Your task to perform on an android device: What's on my calendar for the rest of the week? Image 0: 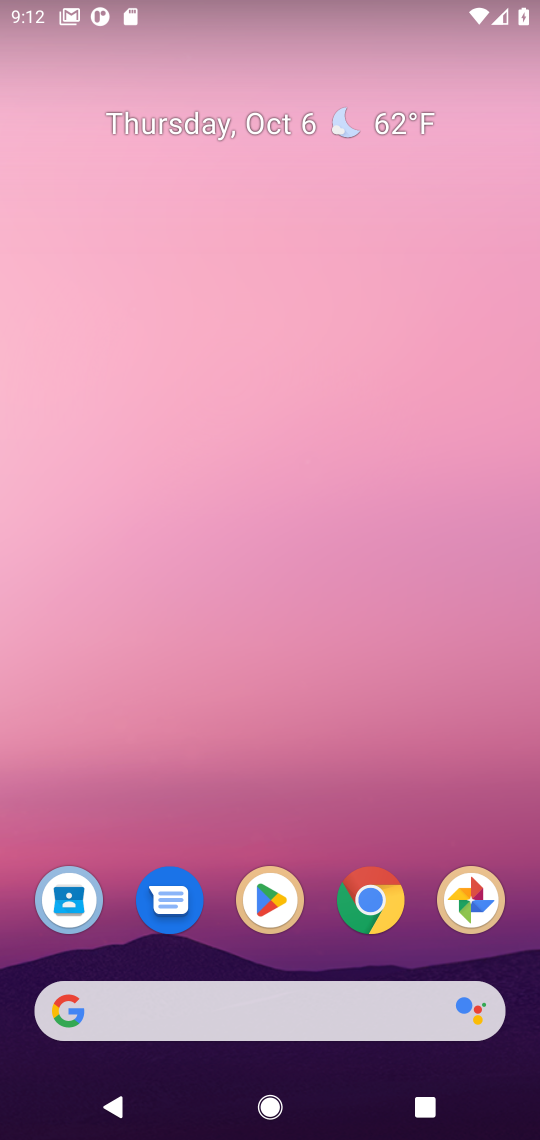
Step 0: press home button
Your task to perform on an android device: What's on my calendar for the rest of the week? Image 1: 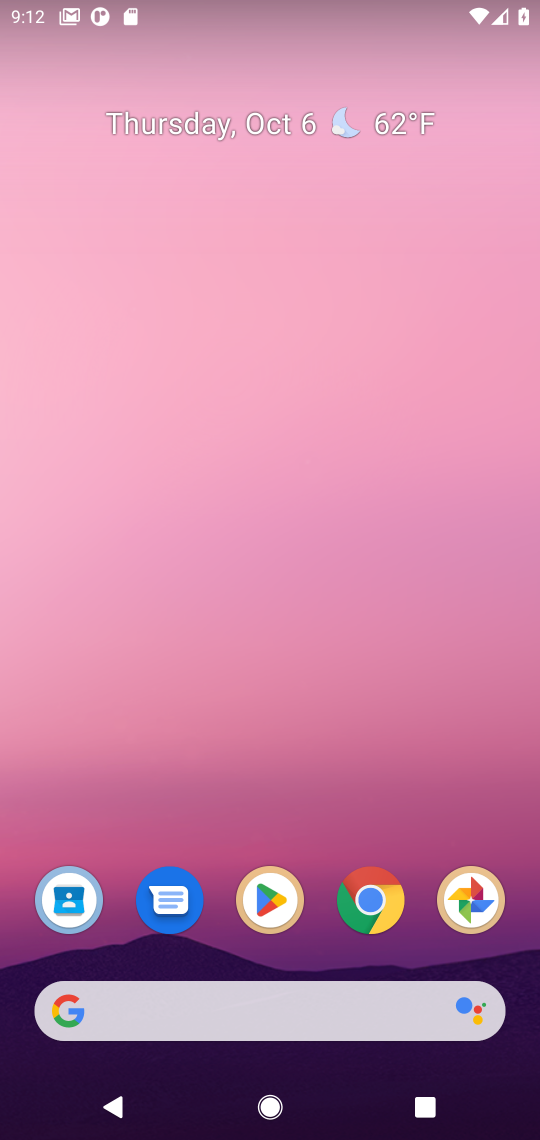
Step 1: drag from (157, 789) to (128, 24)
Your task to perform on an android device: What's on my calendar for the rest of the week? Image 2: 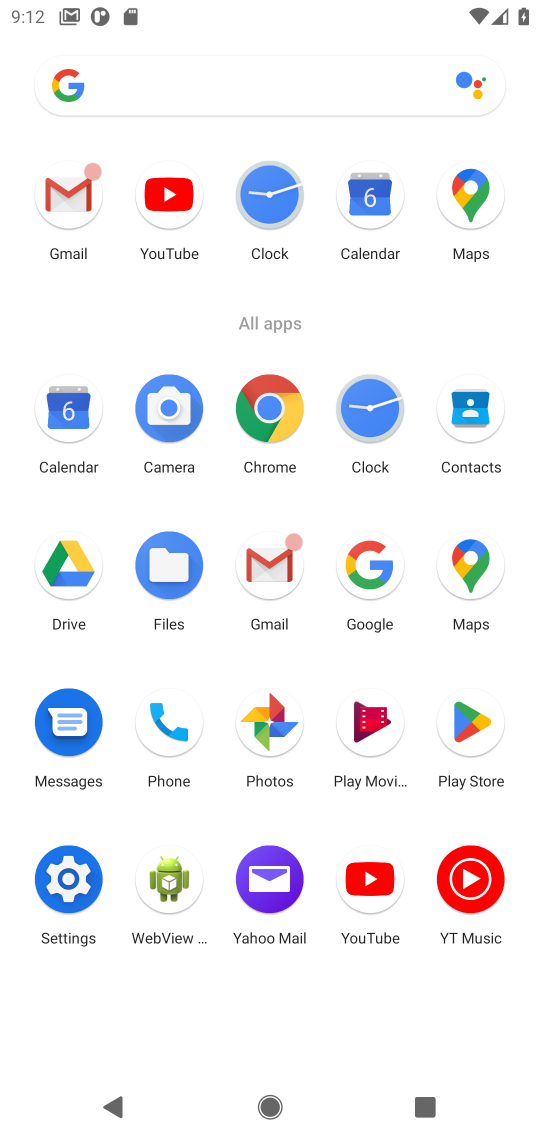
Step 2: click (68, 418)
Your task to perform on an android device: What's on my calendar for the rest of the week? Image 3: 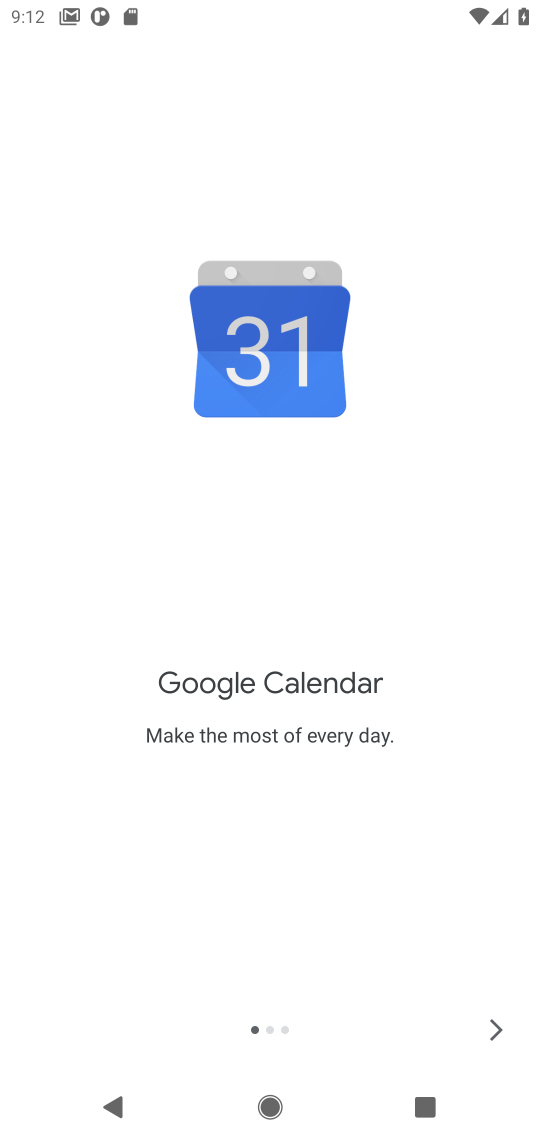
Step 3: click (484, 1032)
Your task to perform on an android device: What's on my calendar for the rest of the week? Image 4: 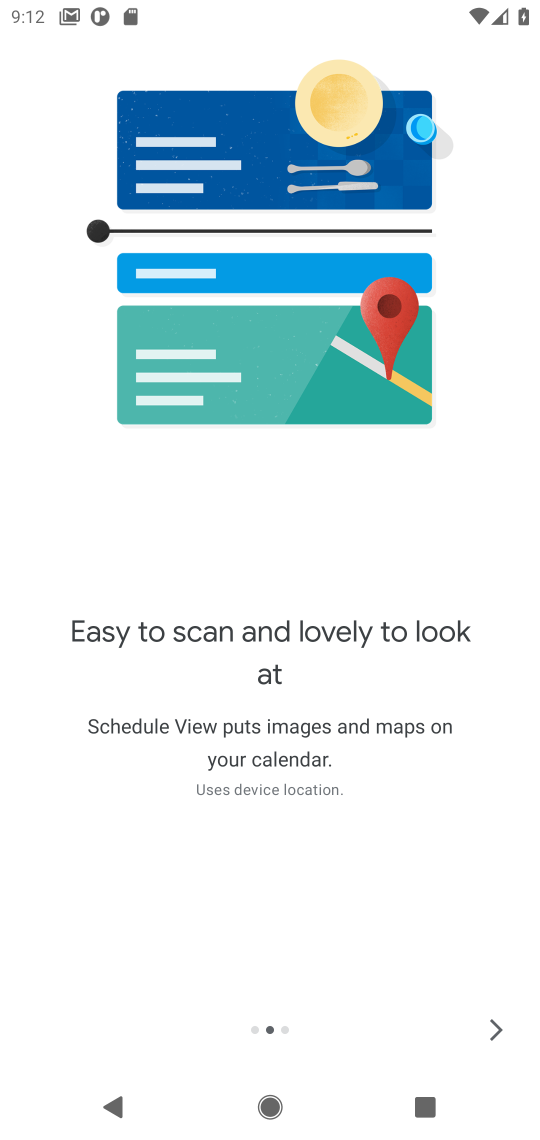
Step 4: click (489, 1039)
Your task to perform on an android device: What's on my calendar for the rest of the week? Image 5: 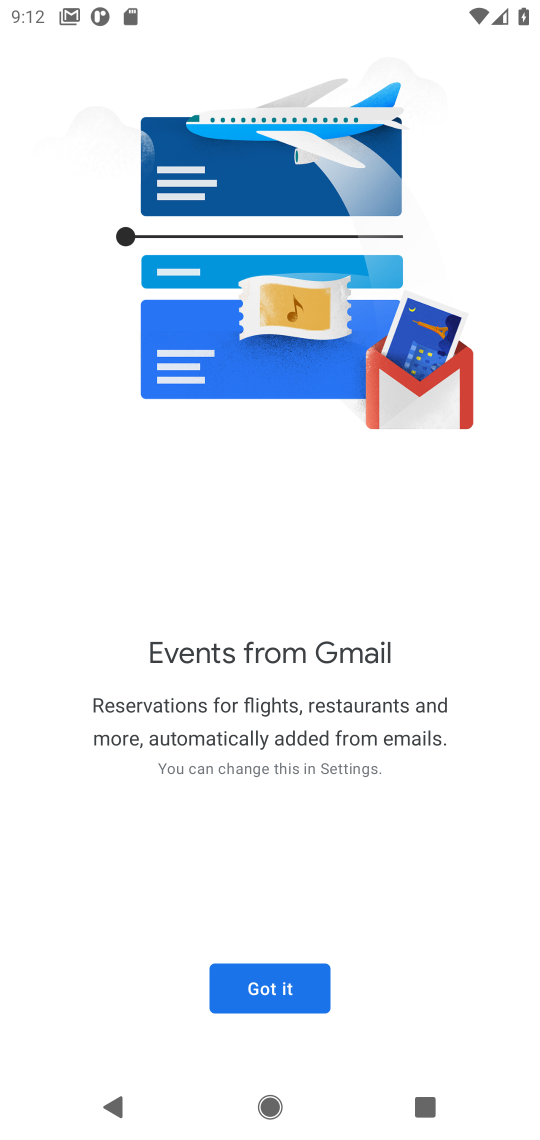
Step 5: click (276, 985)
Your task to perform on an android device: What's on my calendar for the rest of the week? Image 6: 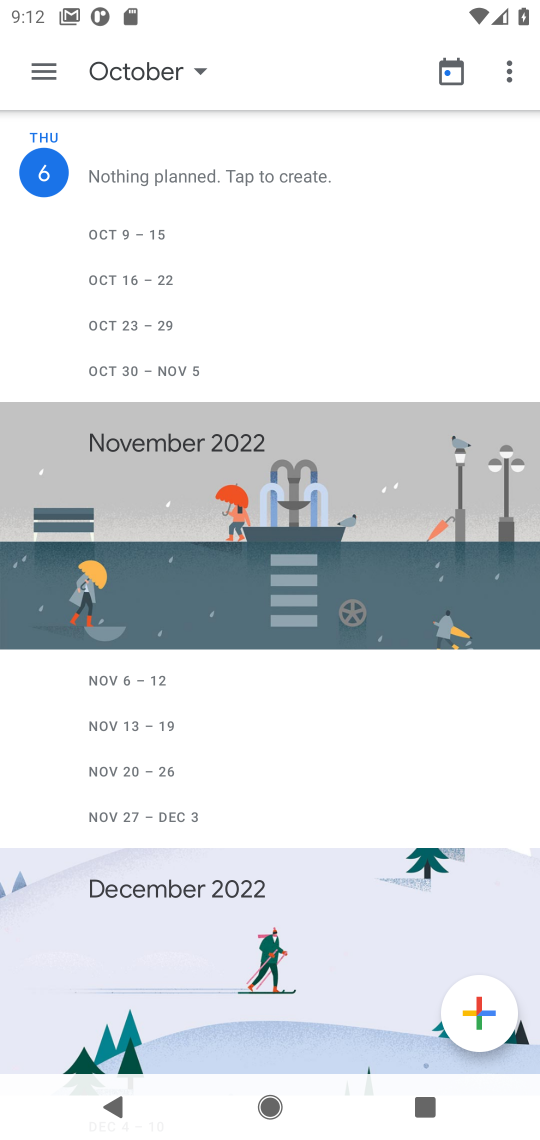
Step 6: task complete